Your task to perform on an android device: Show me recent news Image 0: 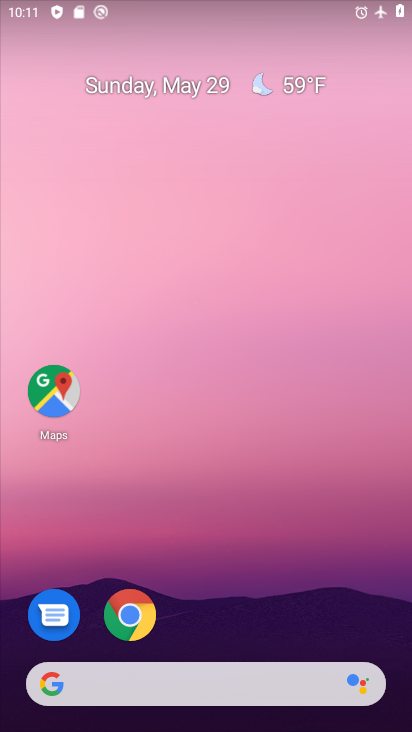
Step 0: drag from (199, 594) to (196, 33)
Your task to perform on an android device: Show me recent news Image 1: 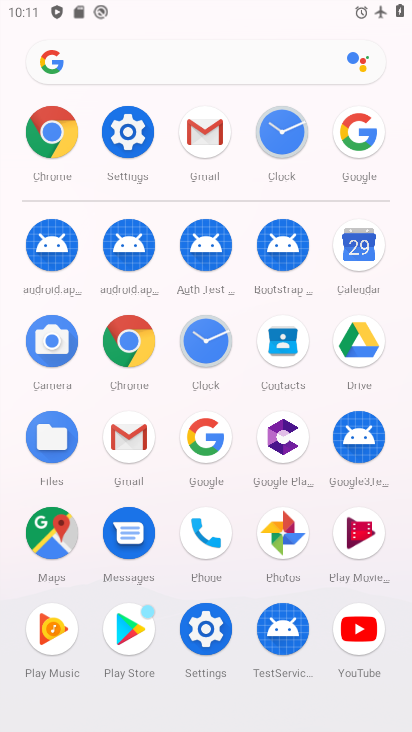
Step 1: click (206, 433)
Your task to perform on an android device: Show me recent news Image 2: 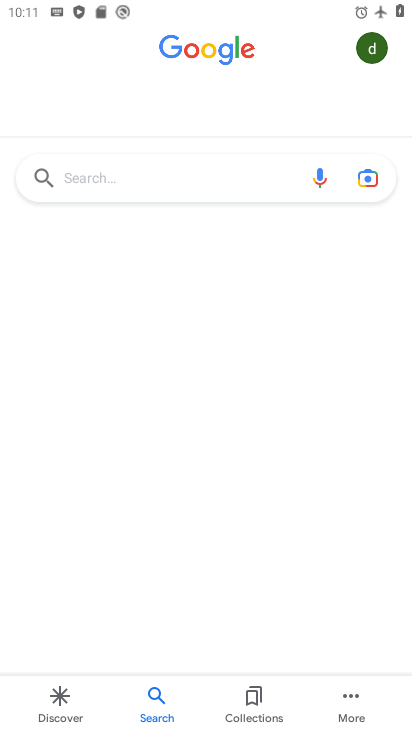
Step 2: click (158, 167)
Your task to perform on an android device: Show me recent news Image 3: 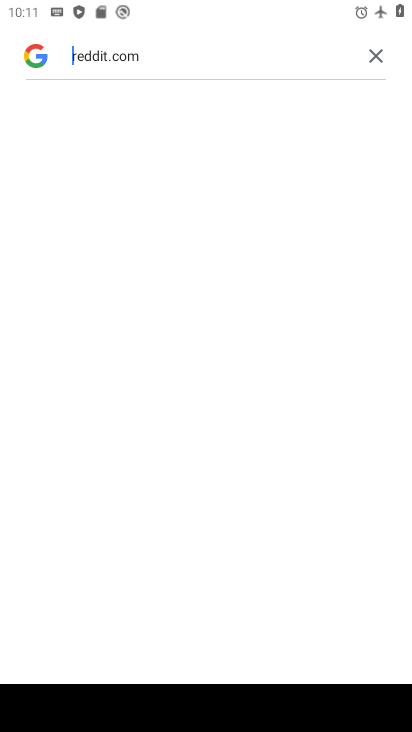
Step 3: click (377, 53)
Your task to perform on an android device: Show me recent news Image 4: 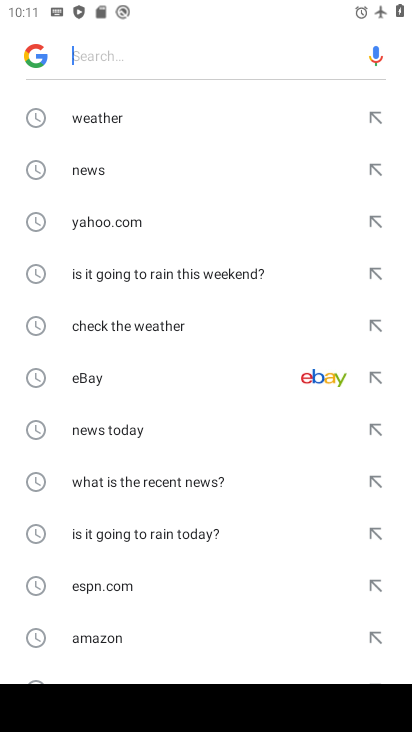
Step 4: click (189, 483)
Your task to perform on an android device: Show me recent news Image 5: 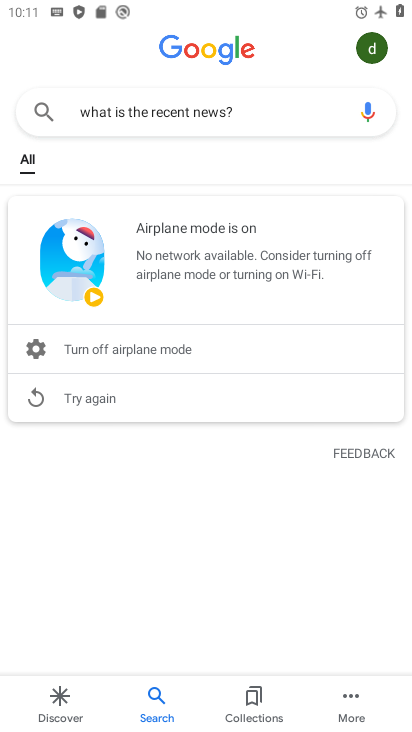
Step 5: task complete